Your task to perform on an android device: Is it going to rain this weekend? Image 0: 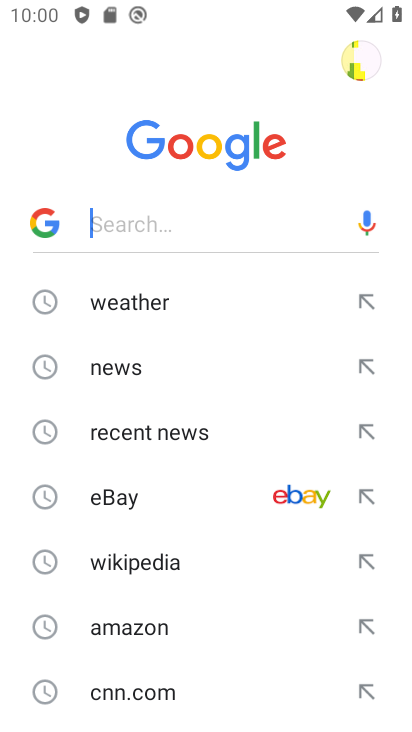
Step 0: press home button
Your task to perform on an android device: Is it going to rain this weekend? Image 1: 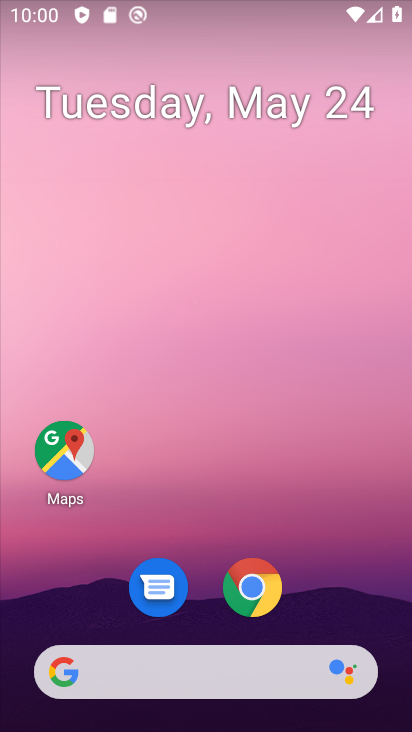
Step 1: drag from (361, 585) to (336, 115)
Your task to perform on an android device: Is it going to rain this weekend? Image 2: 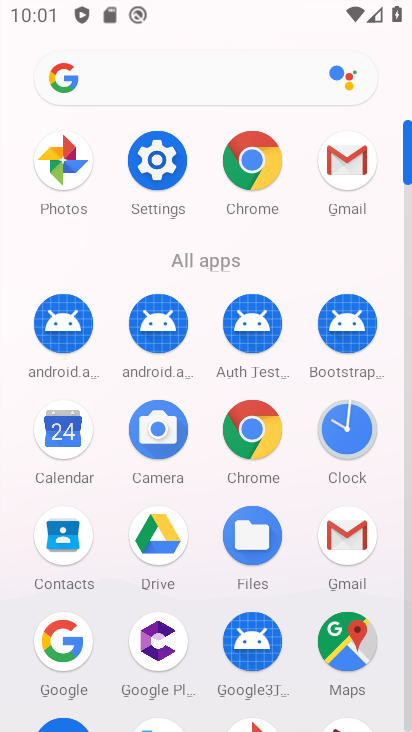
Step 2: click (251, 163)
Your task to perform on an android device: Is it going to rain this weekend? Image 3: 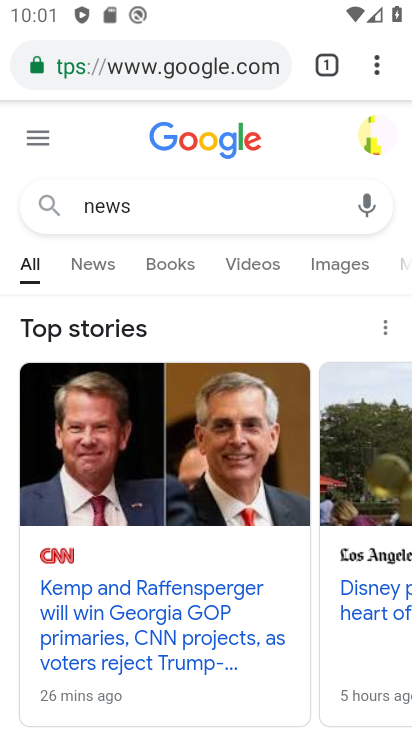
Step 3: click (216, 68)
Your task to perform on an android device: Is it going to rain this weekend? Image 4: 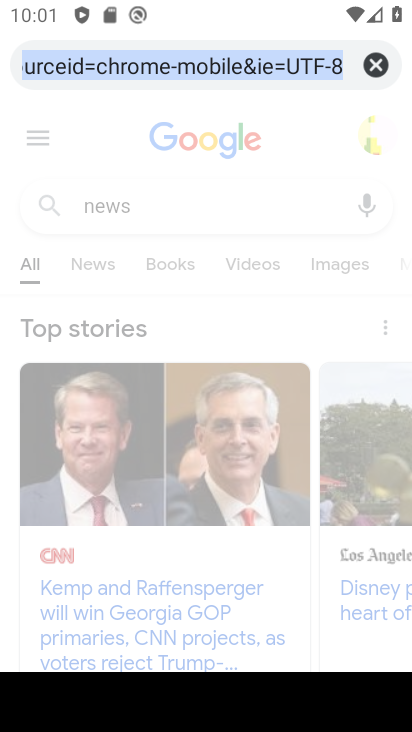
Step 4: click (385, 65)
Your task to perform on an android device: Is it going to rain this weekend? Image 5: 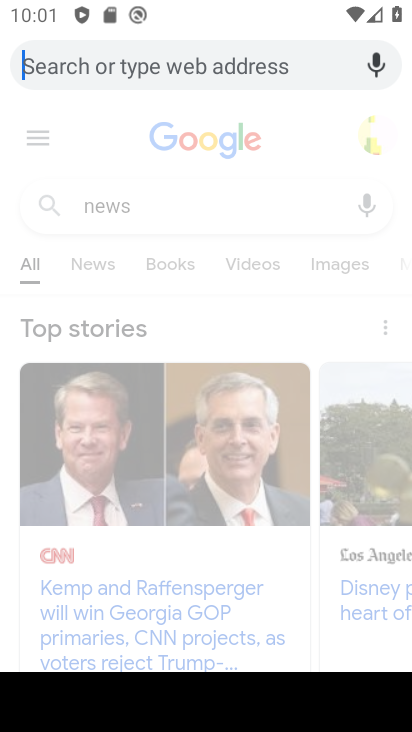
Step 5: type "Is it going to rain this weekend?"
Your task to perform on an android device: Is it going to rain this weekend? Image 6: 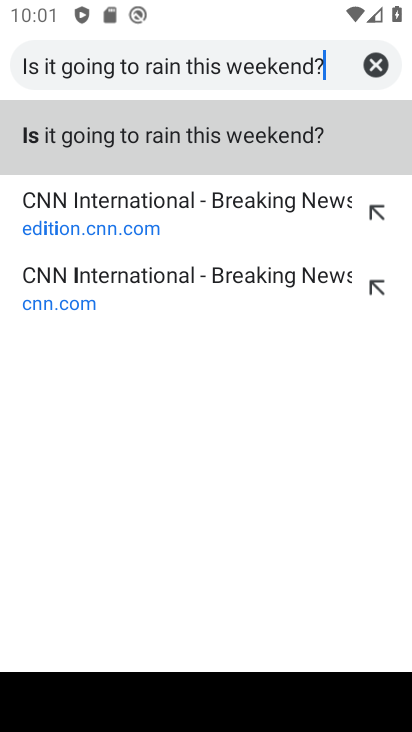
Step 6: type ""
Your task to perform on an android device: Is it going to rain this weekend? Image 7: 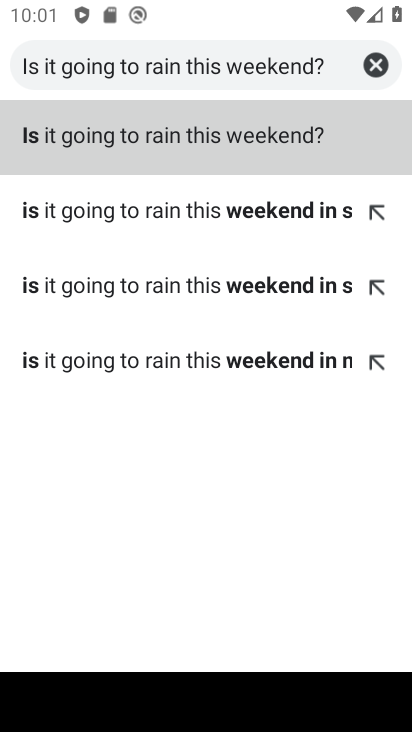
Step 7: click (114, 146)
Your task to perform on an android device: Is it going to rain this weekend? Image 8: 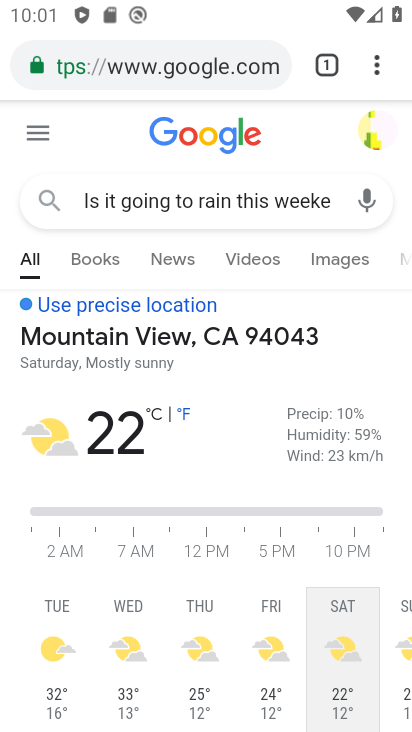
Step 8: task complete